Your task to perform on an android device: Open calendar and show me the third week of next month Image 0: 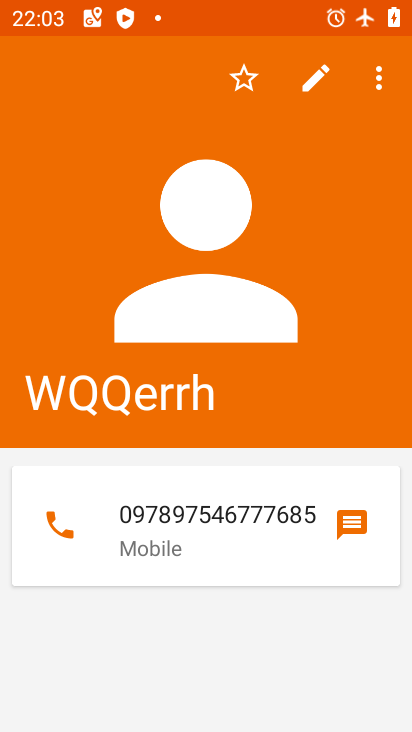
Step 0: press home button
Your task to perform on an android device: Open calendar and show me the third week of next month Image 1: 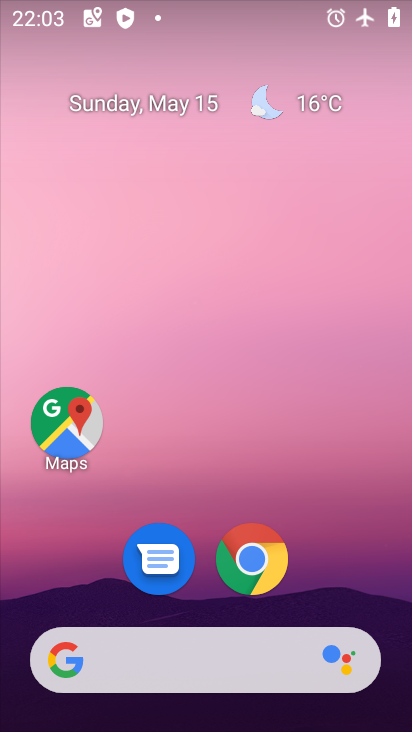
Step 1: click (185, 69)
Your task to perform on an android device: Open calendar and show me the third week of next month Image 2: 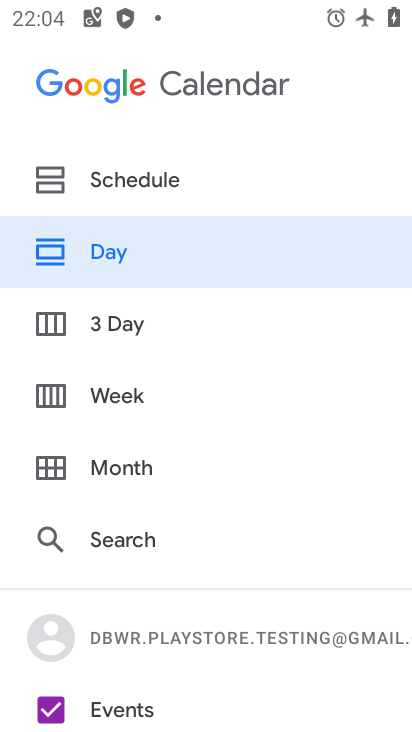
Step 2: click (109, 386)
Your task to perform on an android device: Open calendar and show me the third week of next month Image 3: 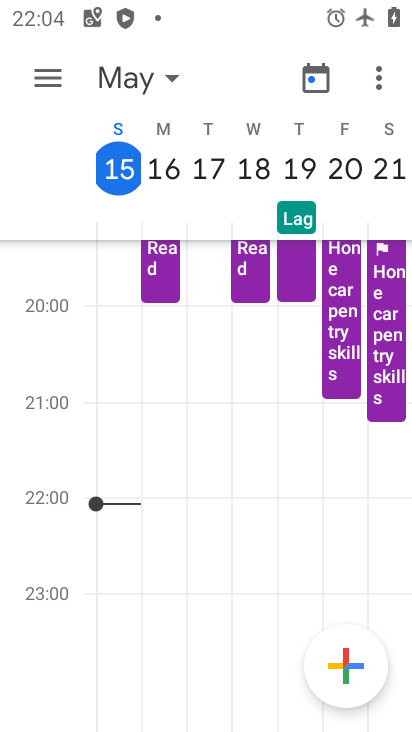
Step 3: click (167, 80)
Your task to perform on an android device: Open calendar and show me the third week of next month Image 4: 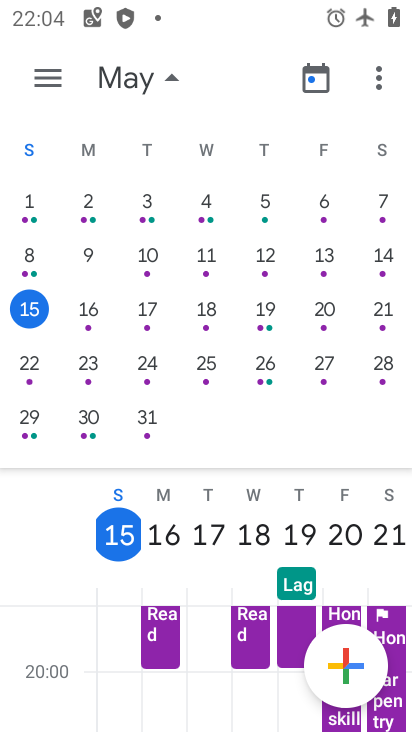
Step 4: drag from (384, 246) to (32, 244)
Your task to perform on an android device: Open calendar and show me the third week of next month Image 5: 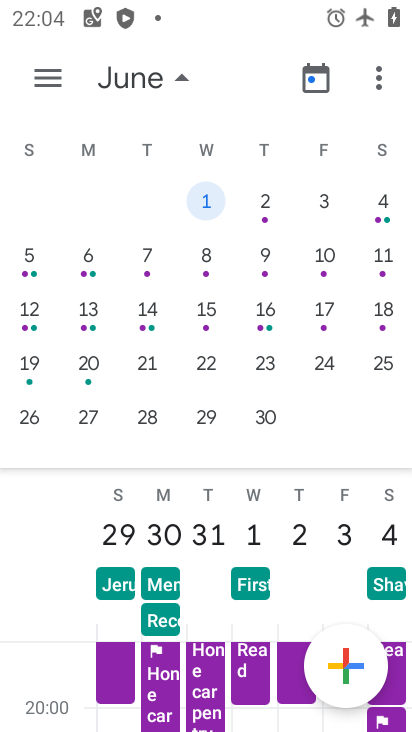
Step 5: click (210, 307)
Your task to perform on an android device: Open calendar and show me the third week of next month Image 6: 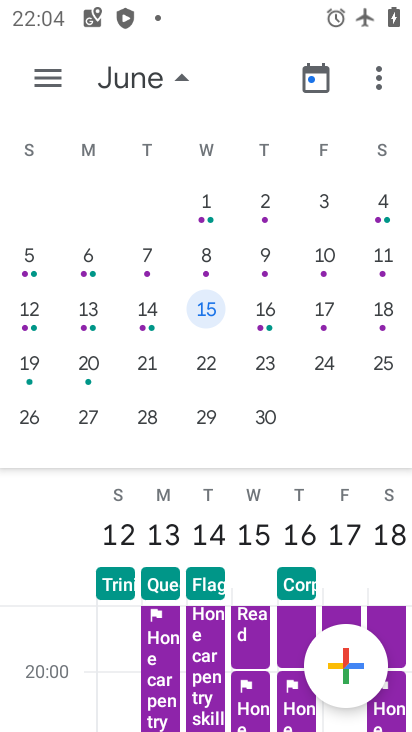
Step 6: task complete